Your task to perform on an android device: open device folders in google photos Image 0: 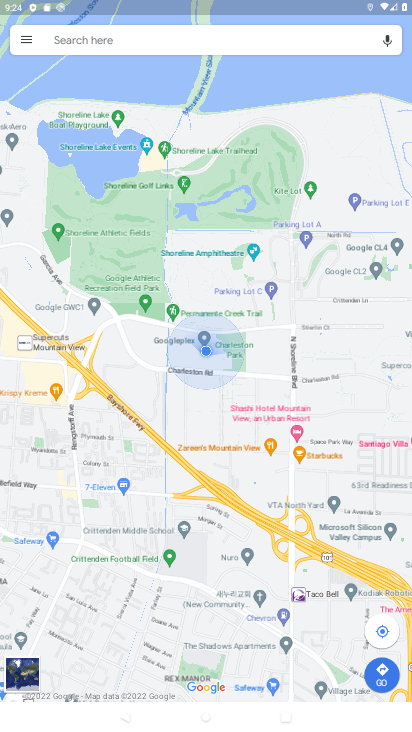
Step 0: press home button
Your task to perform on an android device: open device folders in google photos Image 1: 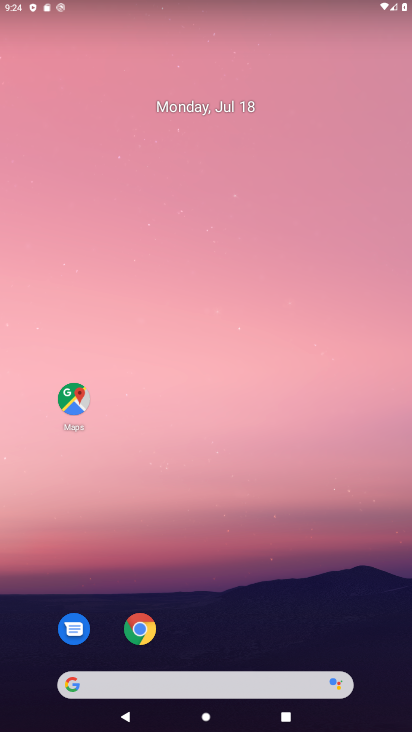
Step 1: drag from (184, 685) to (179, 293)
Your task to perform on an android device: open device folders in google photos Image 2: 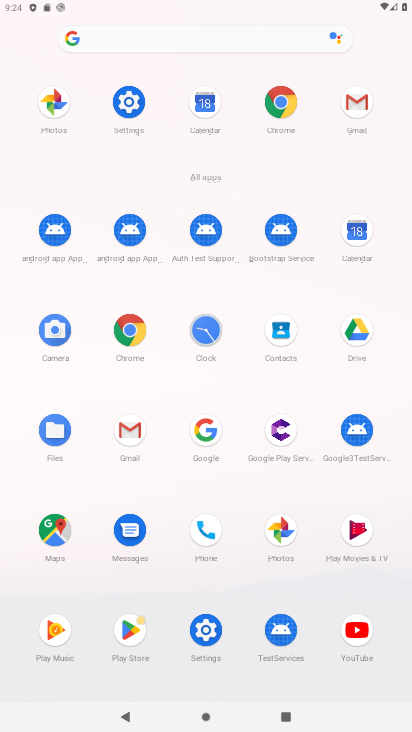
Step 2: click (279, 534)
Your task to perform on an android device: open device folders in google photos Image 3: 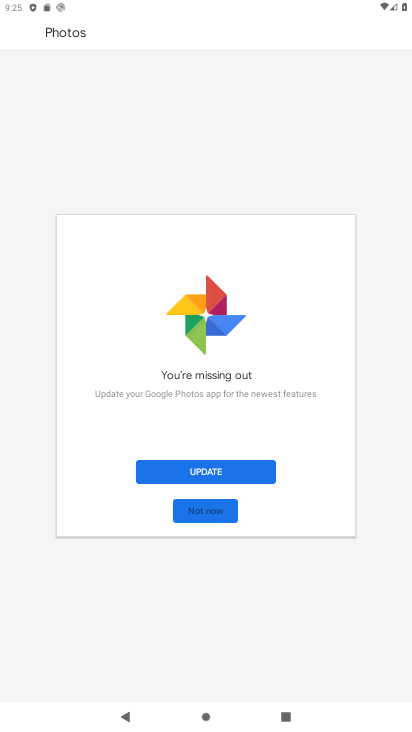
Step 3: click (198, 520)
Your task to perform on an android device: open device folders in google photos Image 4: 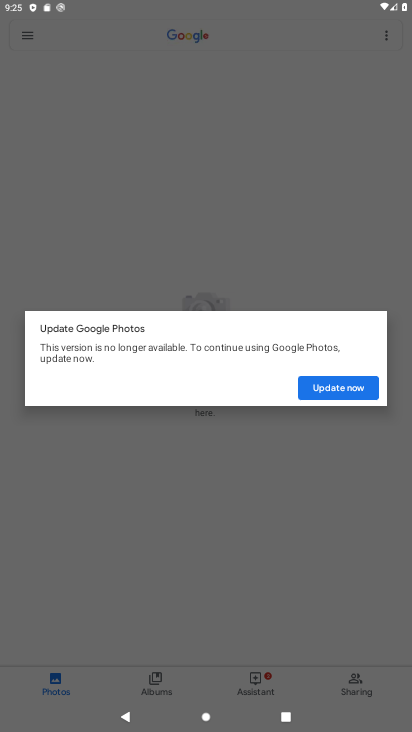
Step 4: click (365, 382)
Your task to perform on an android device: open device folders in google photos Image 5: 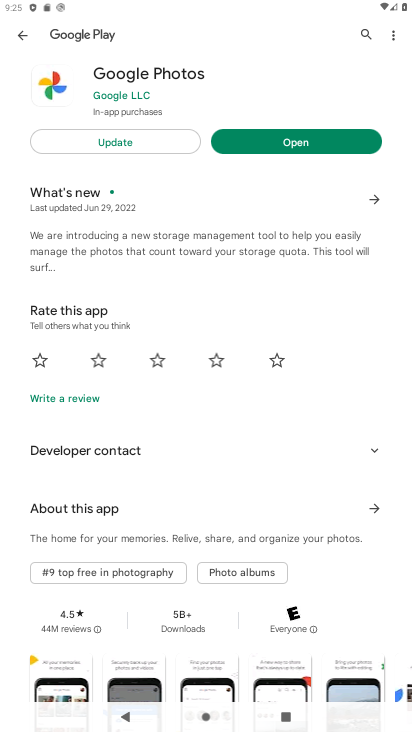
Step 5: click (153, 140)
Your task to perform on an android device: open device folders in google photos Image 6: 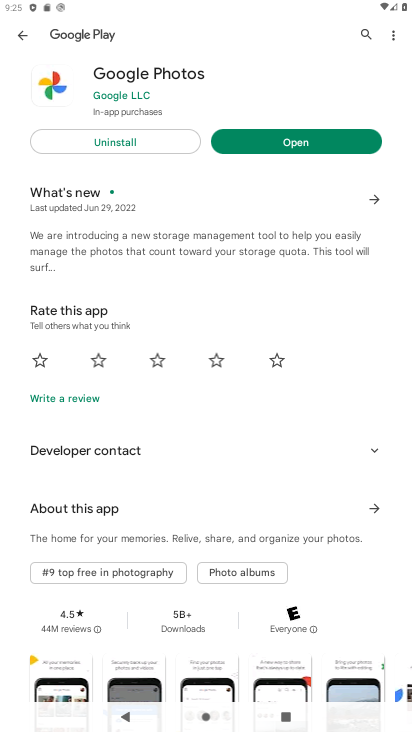
Step 6: click (269, 148)
Your task to perform on an android device: open device folders in google photos Image 7: 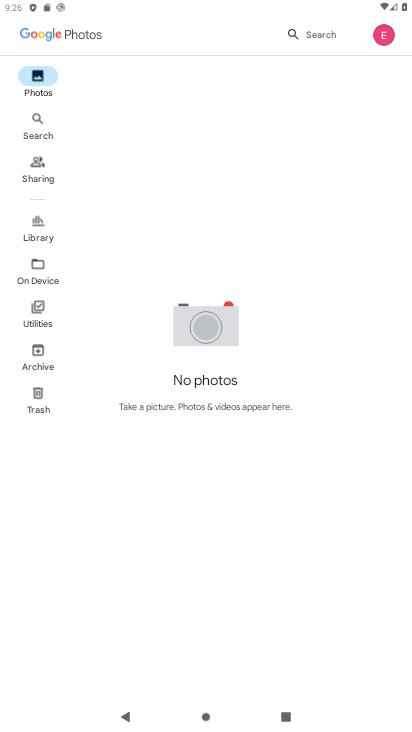
Step 7: task complete